Your task to perform on an android device: Go to Amazon Image 0: 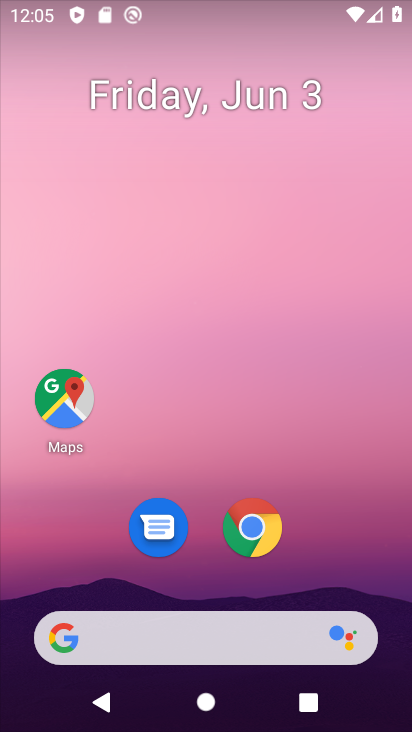
Step 0: click (272, 547)
Your task to perform on an android device: Go to Amazon Image 1: 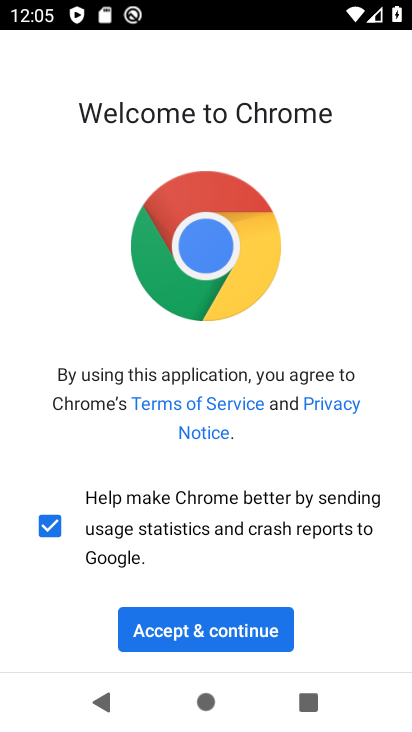
Step 1: click (252, 618)
Your task to perform on an android device: Go to Amazon Image 2: 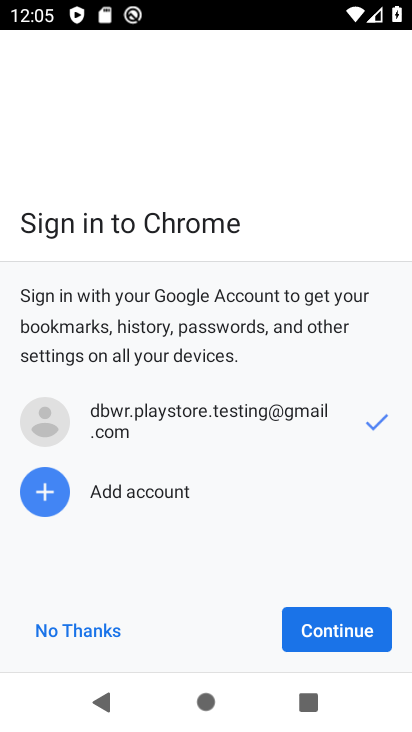
Step 2: click (338, 632)
Your task to perform on an android device: Go to Amazon Image 3: 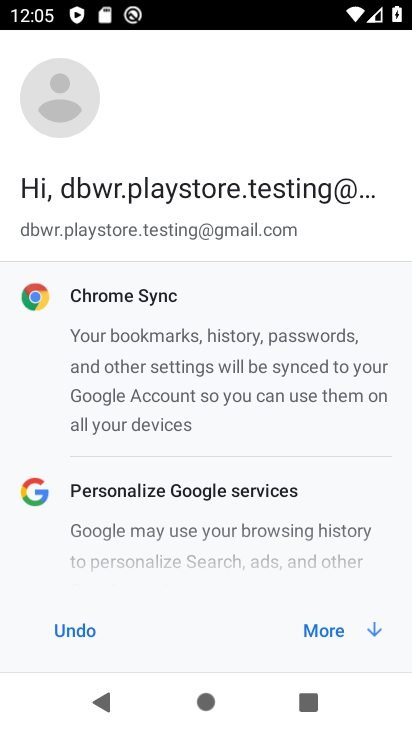
Step 3: click (338, 632)
Your task to perform on an android device: Go to Amazon Image 4: 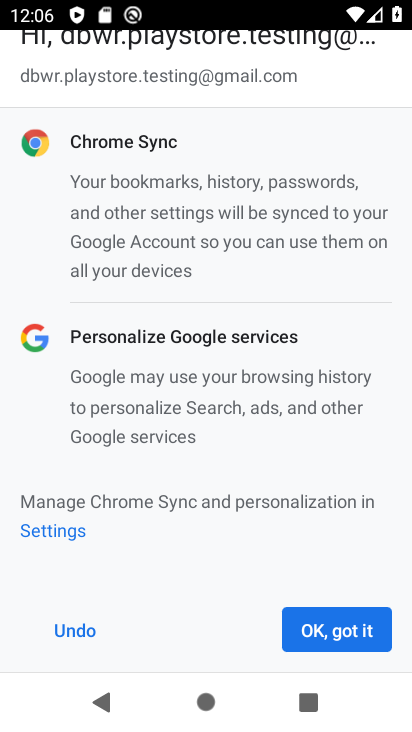
Step 4: click (338, 629)
Your task to perform on an android device: Go to Amazon Image 5: 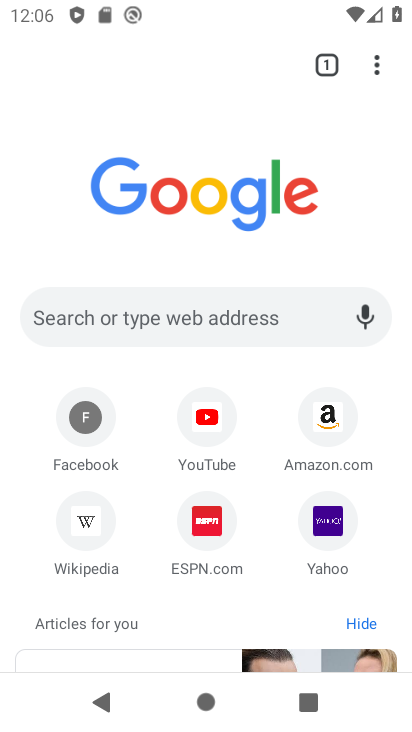
Step 5: click (317, 425)
Your task to perform on an android device: Go to Amazon Image 6: 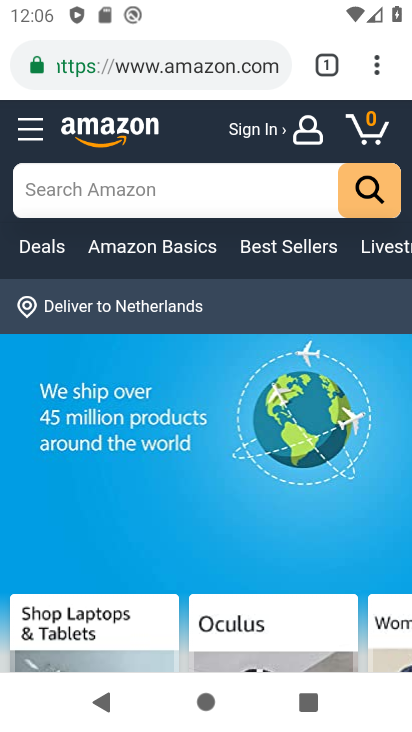
Step 6: task complete